Your task to perform on an android device: What's on my calendar tomorrow? Image 0: 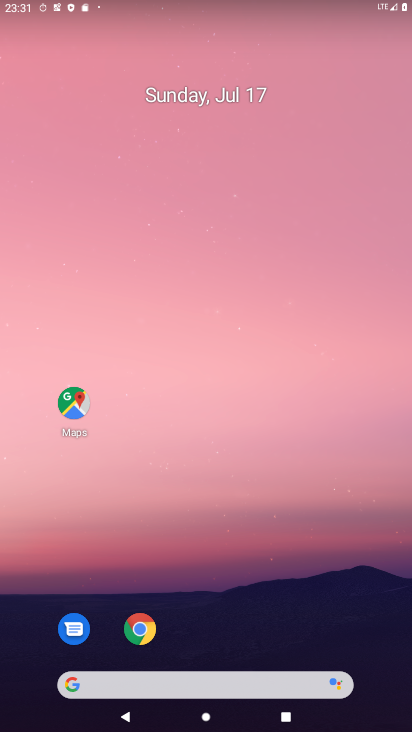
Step 0: drag from (224, 725) to (220, 172)
Your task to perform on an android device: What's on my calendar tomorrow? Image 1: 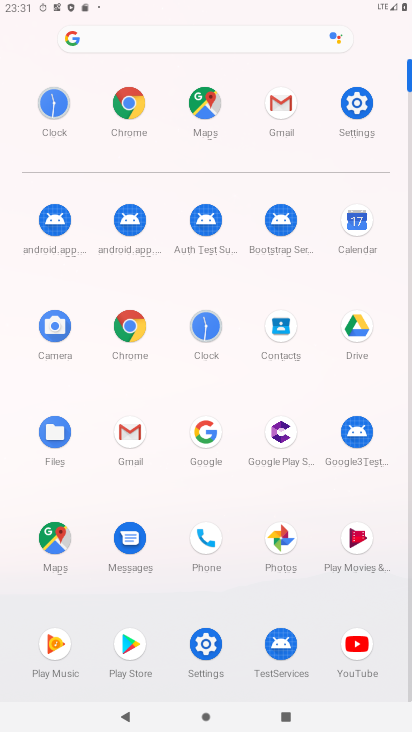
Step 1: click (360, 218)
Your task to perform on an android device: What's on my calendar tomorrow? Image 2: 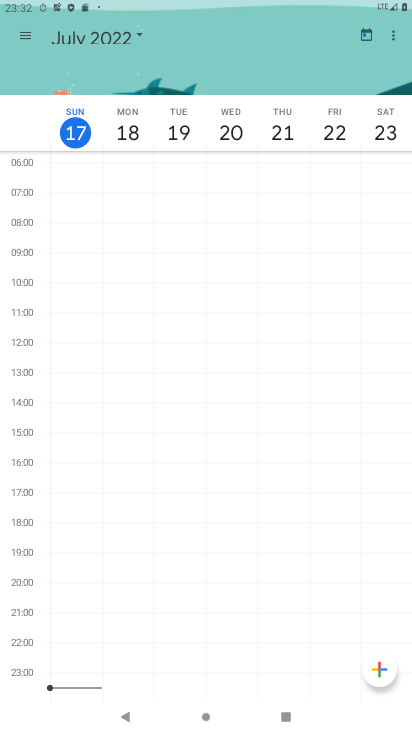
Step 2: click (127, 121)
Your task to perform on an android device: What's on my calendar tomorrow? Image 3: 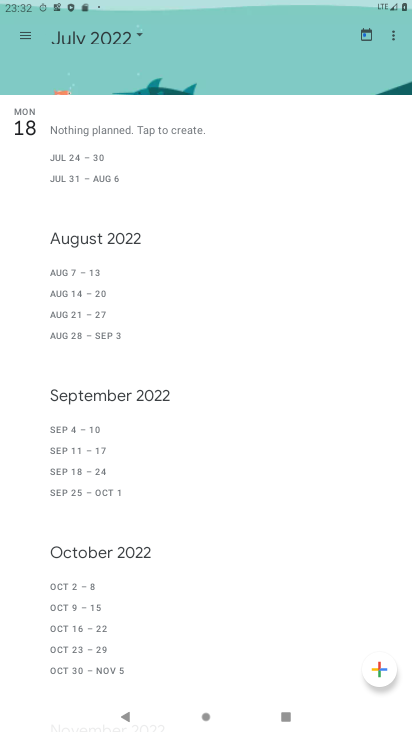
Step 3: task complete